Your task to perform on an android device: set default search engine in the chrome app Image 0: 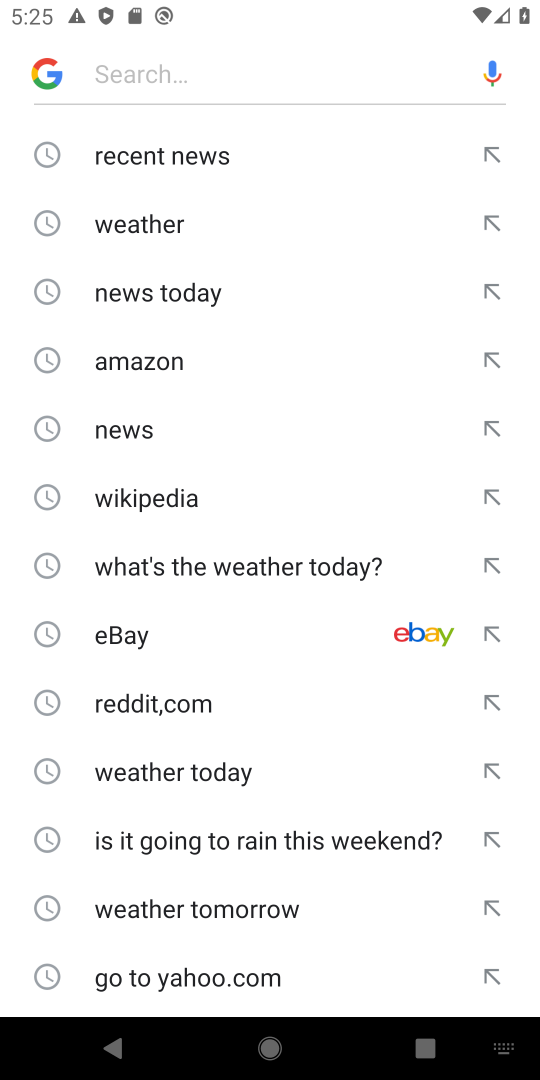
Step 0: press home button
Your task to perform on an android device: set default search engine in the chrome app Image 1: 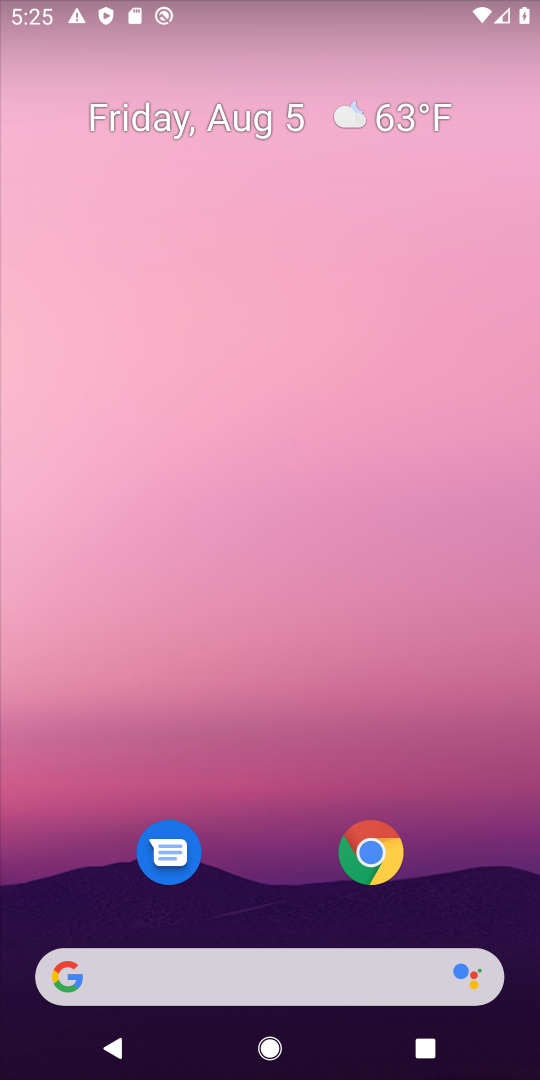
Step 1: drag from (255, 710) to (257, 24)
Your task to perform on an android device: set default search engine in the chrome app Image 2: 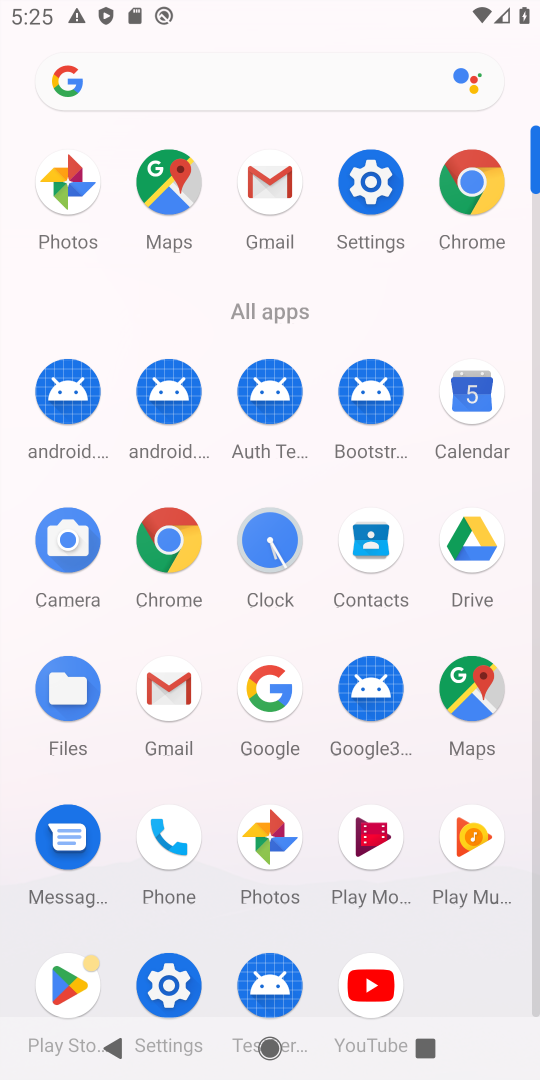
Step 2: click (168, 550)
Your task to perform on an android device: set default search engine in the chrome app Image 3: 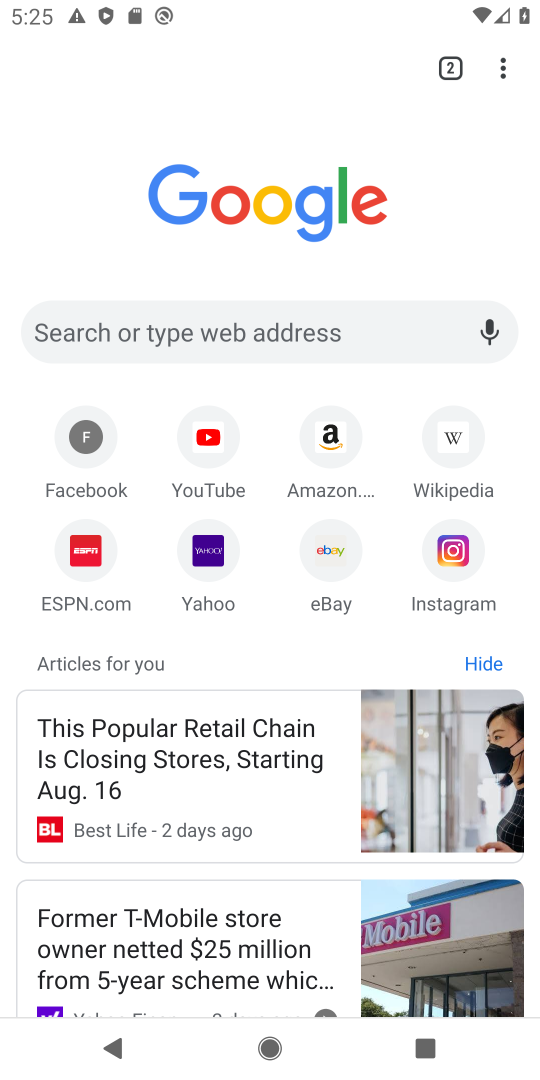
Step 3: click (503, 73)
Your task to perform on an android device: set default search engine in the chrome app Image 4: 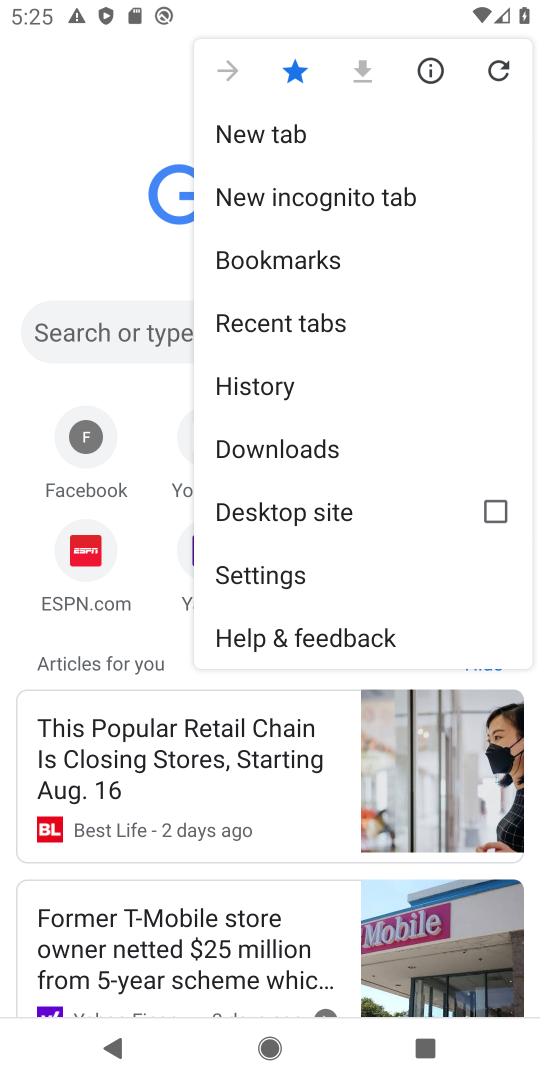
Step 4: click (291, 569)
Your task to perform on an android device: set default search engine in the chrome app Image 5: 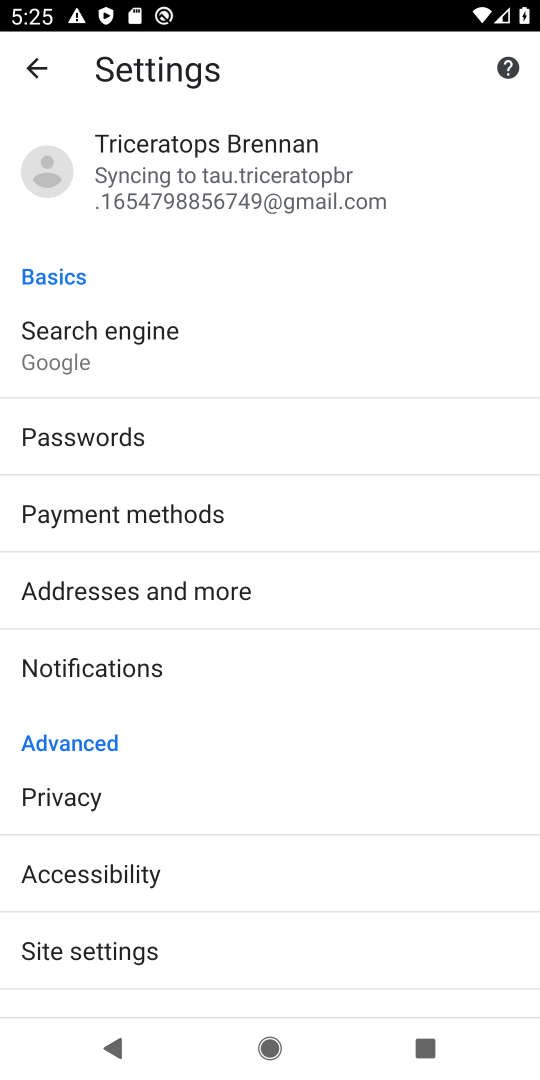
Step 5: click (101, 356)
Your task to perform on an android device: set default search engine in the chrome app Image 6: 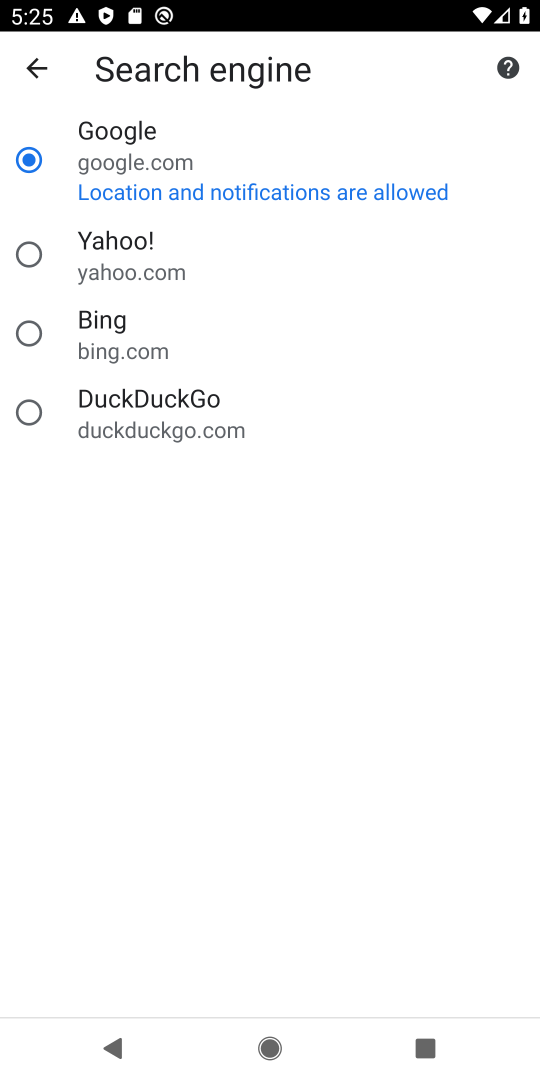
Step 6: click (170, 188)
Your task to perform on an android device: set default search engine in the chrome app Image 7: 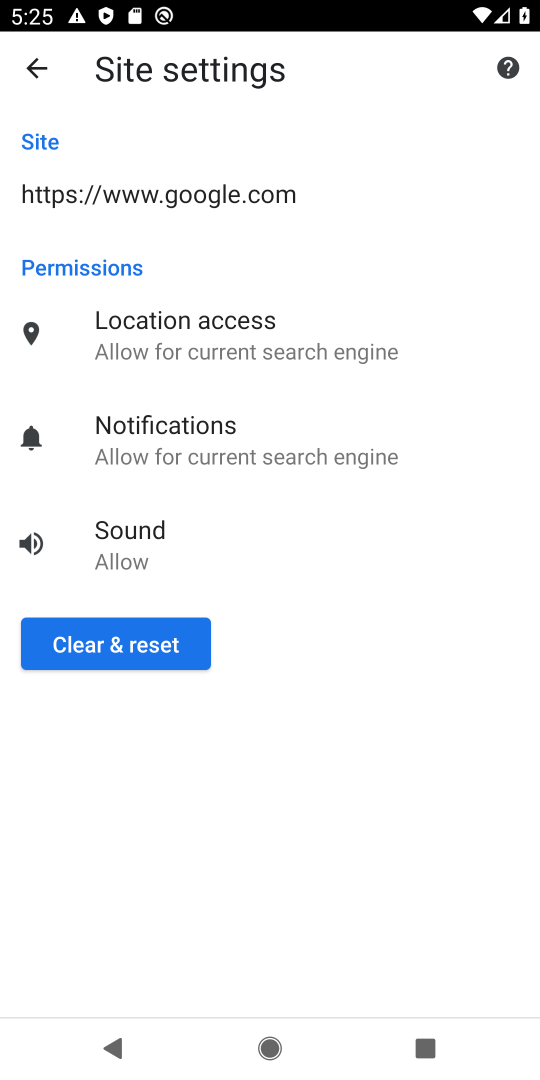
Step 7: click (167, 633)
Your task to perform on an android device: set default search engine in the chrome app Image 8: 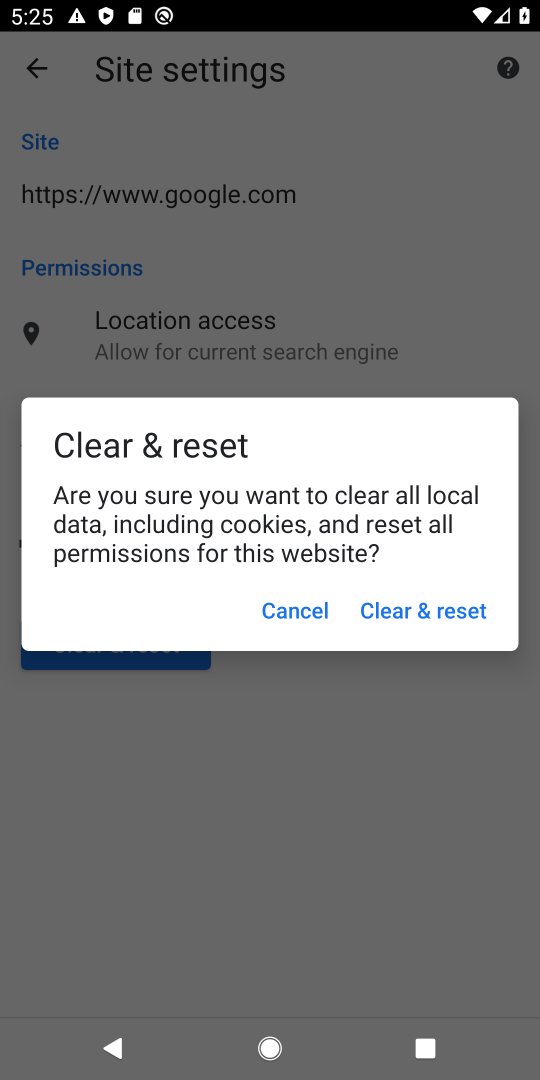
Step 8: click (416, 601)
Your task to perform on an android device: set default search engine in the chrome app Image 9: 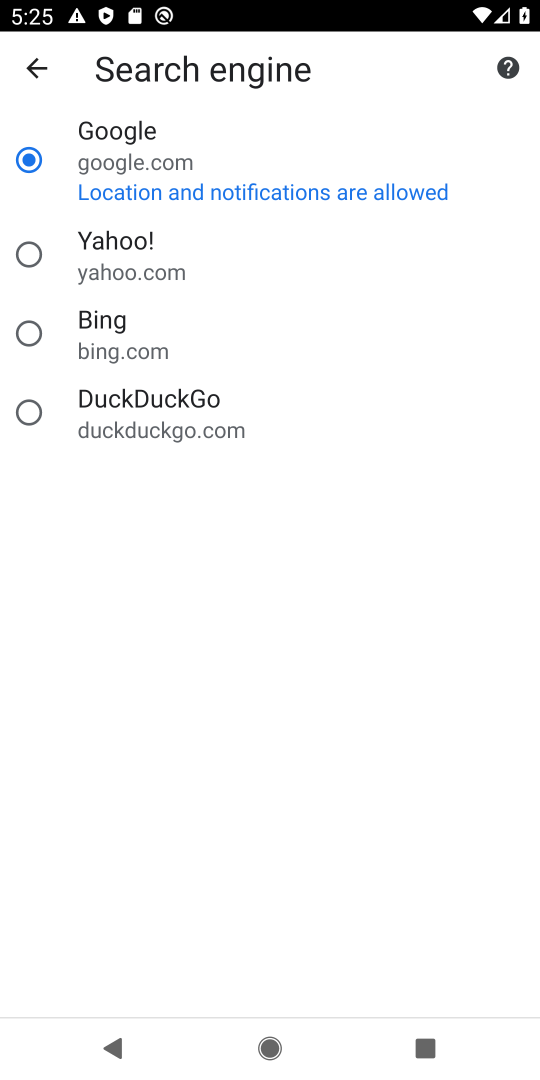
Step 9: task complete